Your task to perform on an android device: Open sound settings Image 0: 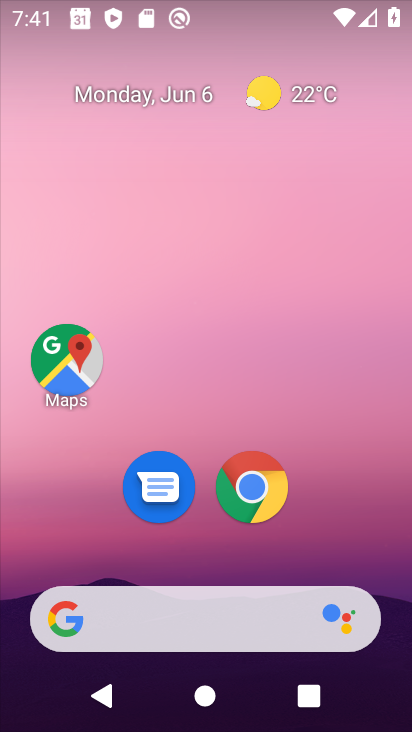
Step 0: drag from (328, 504) to (357, 144)
Your task to perform on an android device: Open sound settings Image 1: 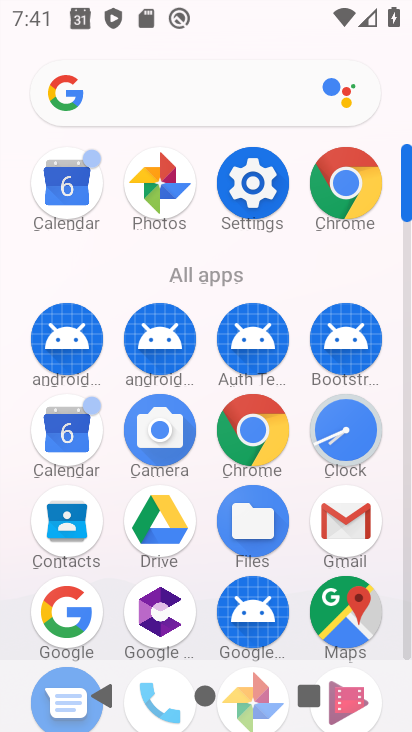
Step 1: click (255, 196)
Your task to perform on an android device: Open sound settings Image 2: 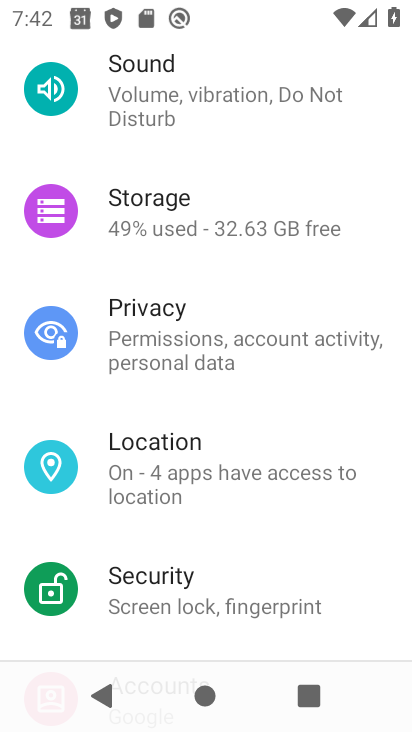
Step 2: click (222, 111)
Your task to perform on an android device: Open sound settings Image 3: 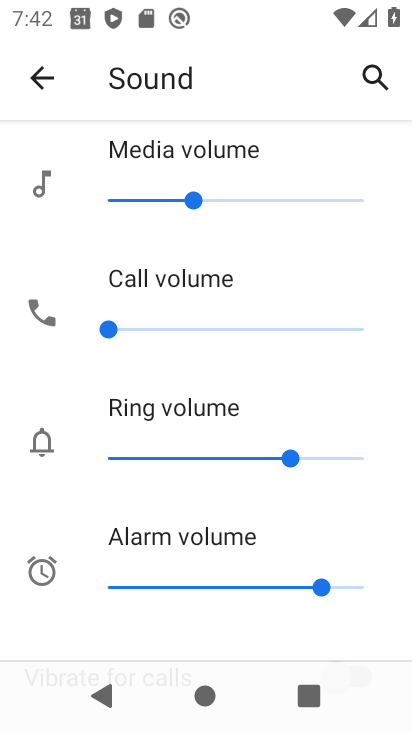
Step 3: task complete